Your task to perform on an android device: set an alarm Image 0: 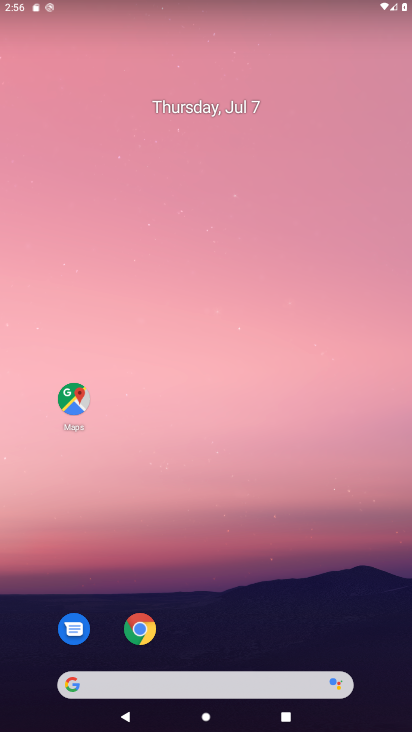
Step 0: drag from (232, 613) to (197, 77)
Your task to perform on an android device: set an alarm Image 1: 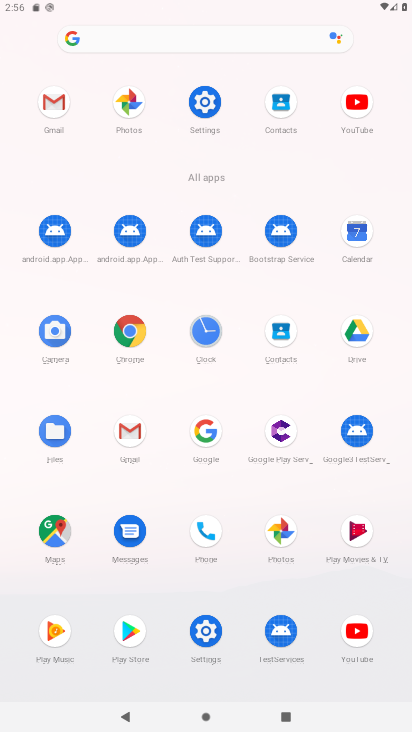
Step 1: click (203, 325)
Your task to perform on an android device: set an alarm Image 2: 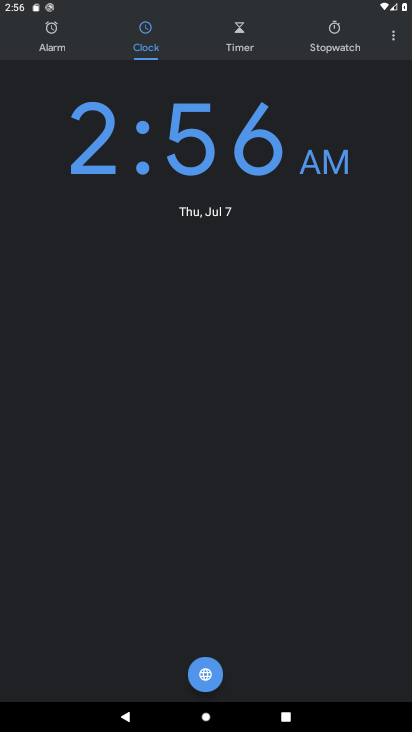
Step 2: click (59, 56)
Your task to perform on an android device: set an alarm Image 3: 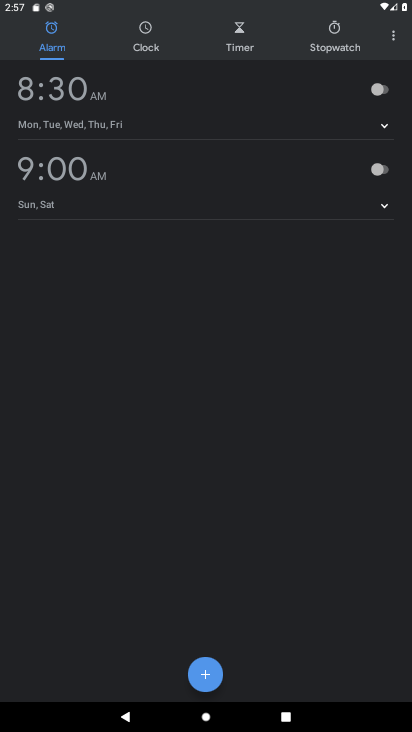
Step 3: click (385, 102)
Your task to perform on an android device: set an alarm Image 4: 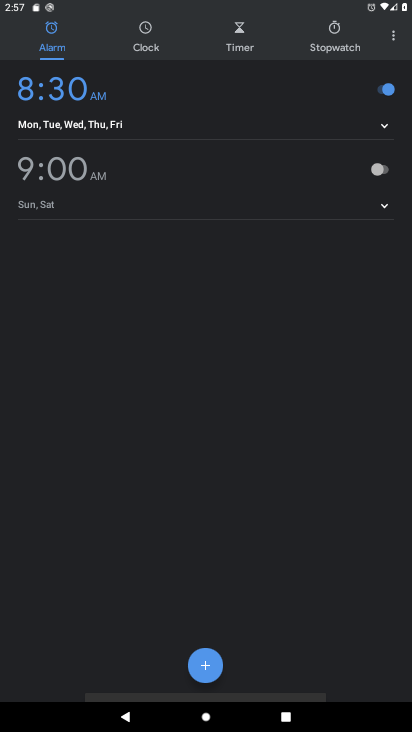
Step 4: task complete